Your task to perform on an android device: open app "Lyft - Rideshare, Bikes, Scooters & Transit" Image 0: 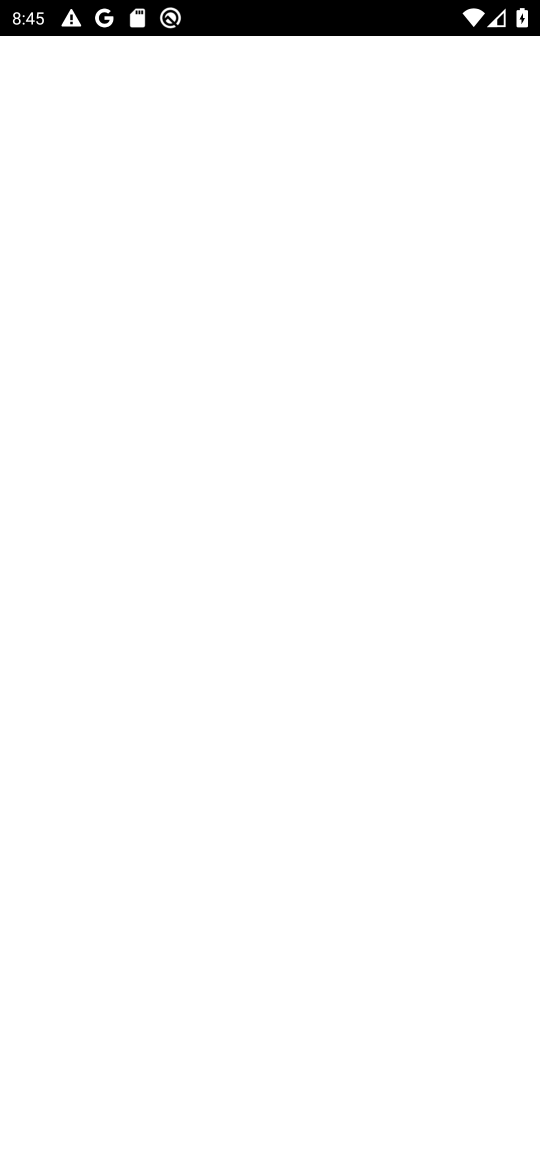
Step 0: press home button
Your task to perform on an android device: open app "Lyft - Rideshare, Bikes, Scooters & Transit" Image 1: 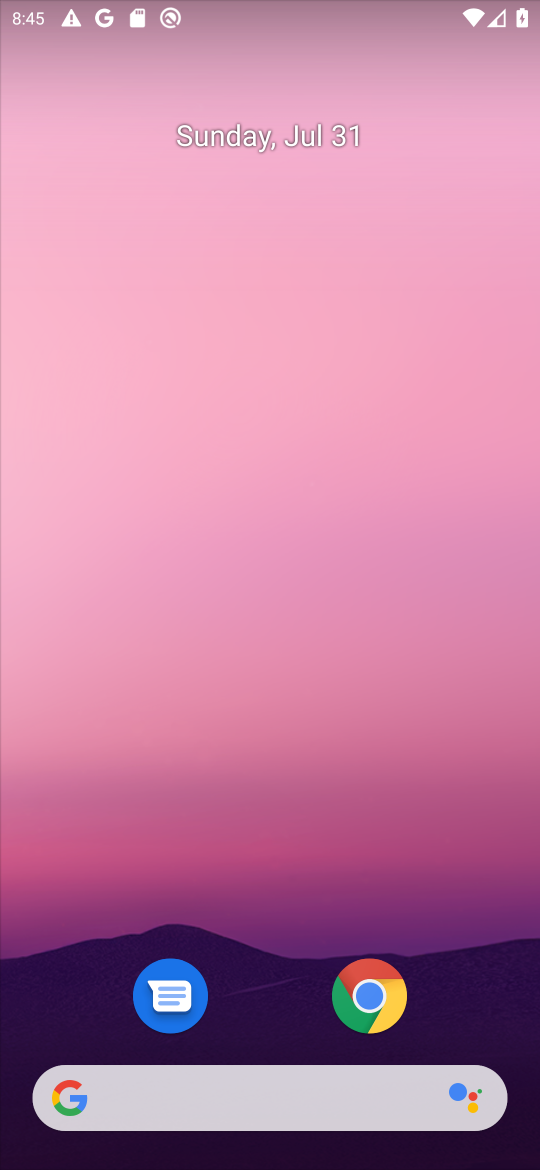
Step 1: drag from (461, 971) to (427, 111)
Your task to perform on an android device: open app "Lyft - Rideshare, Bikes, Scooters & Transit" Image 2: 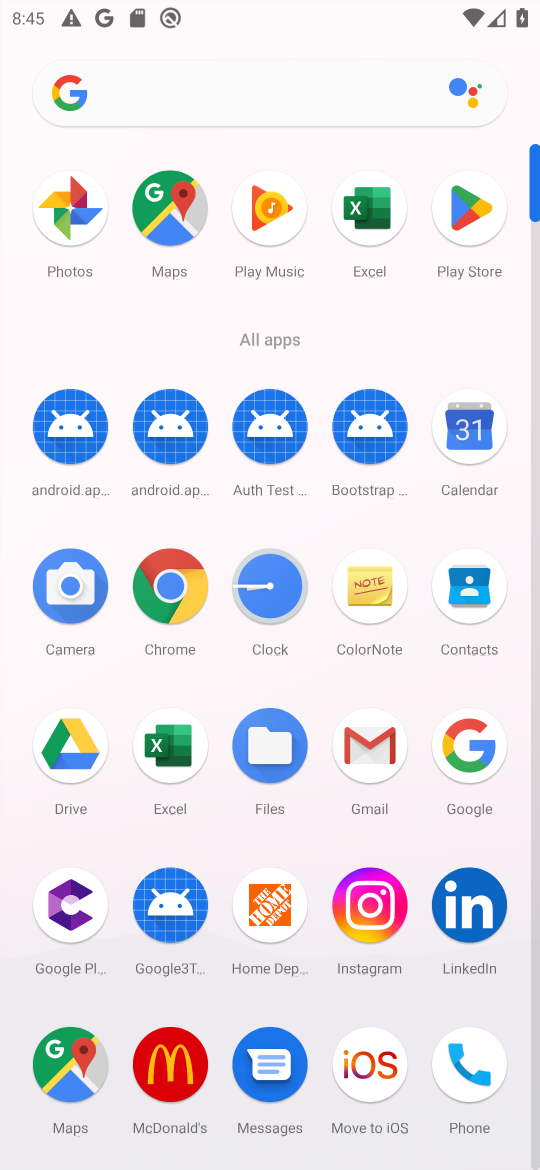
Step 2: click (466, 202)
Your task to perform on an android device: open app "Lyft - Rideshare, Bikes, Scooters & Transit" Image 3: 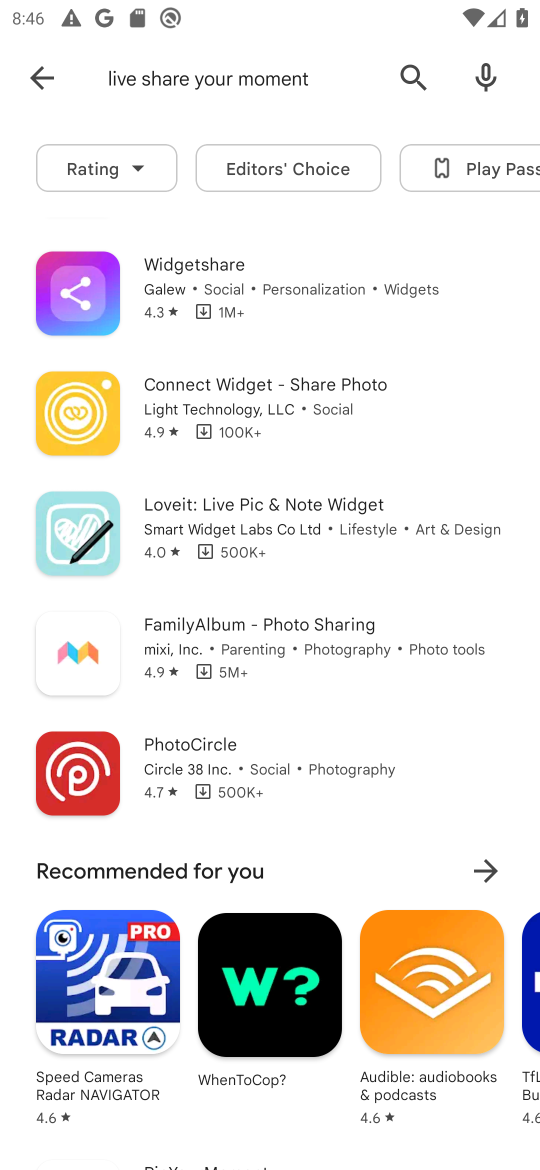
Step 3: click (412, 84)
Your task to perform on an android device: open app "Lyft - Rideshare, Bikes, Scooters & Transit" Image 4: 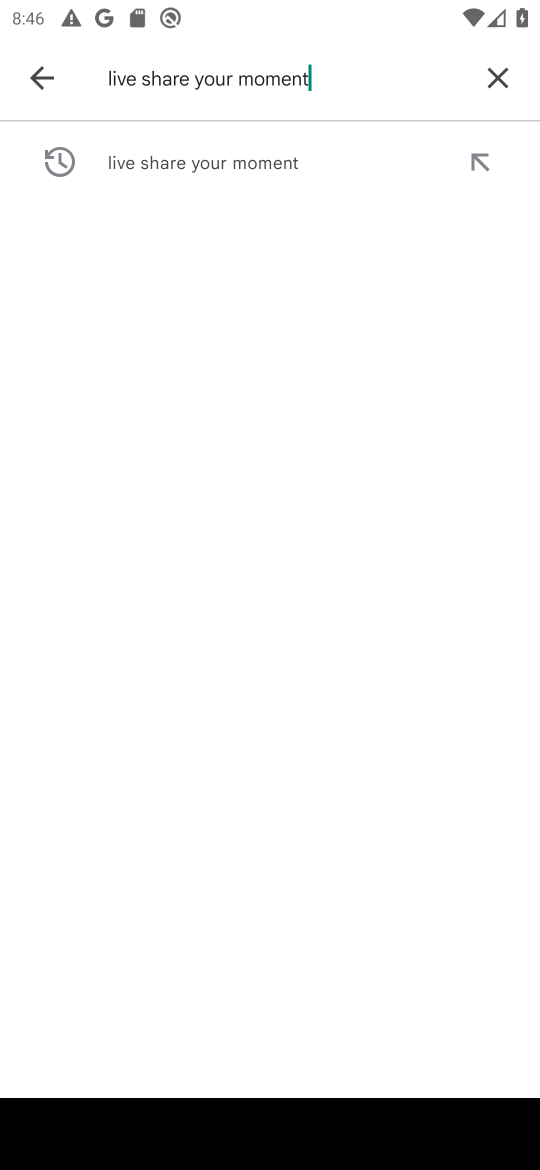
Step 4: type "Lyft - Rideshare, Bikes, Scooters & Transit"
Your task to perform on an android device: open app "Lyft - Rideshare, Bikes, Scooters & Transit" Image 5: 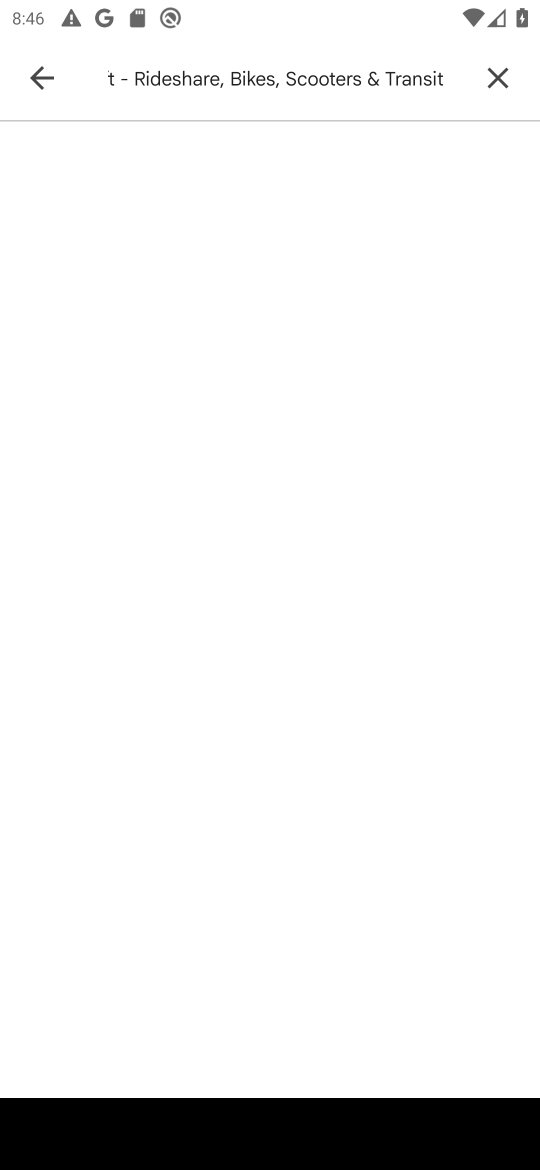
Step 5: click (365, 363)
Your task to perform on an android device: open app "Lyft - Rideshare, Bikes, Scooters & Transit" Image 6: 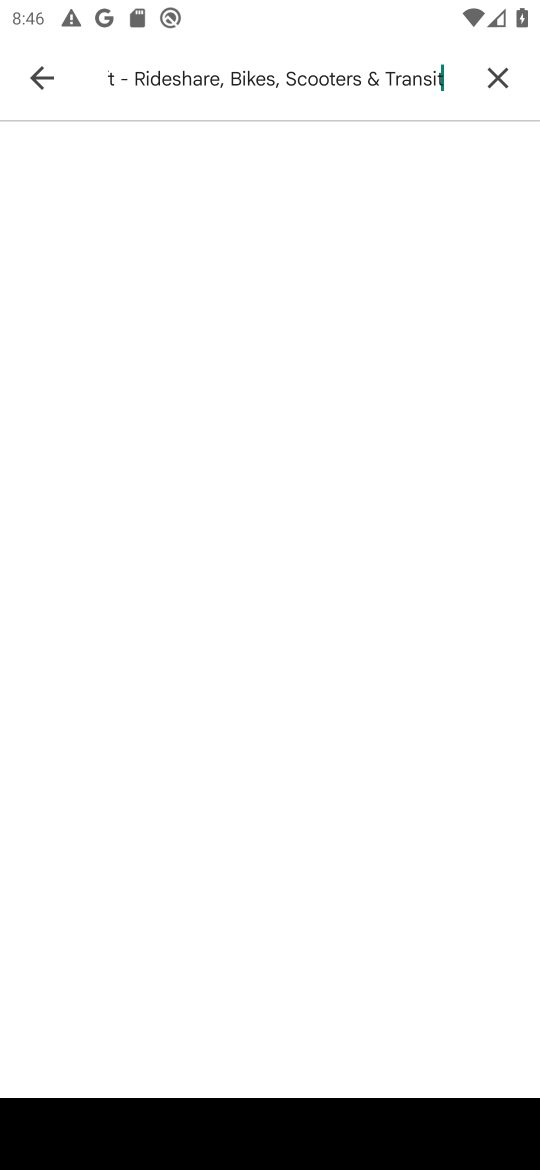
Step 6: task complete